Your task to perform on an android device: toggle wifi Image 0: 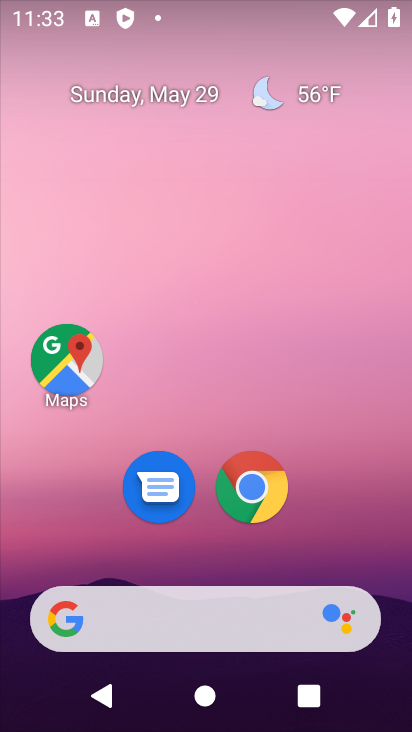
Step 0: drag from (261, 557) to (301, 185)
Your task to perform on an android device: toggle wifi Image 1: 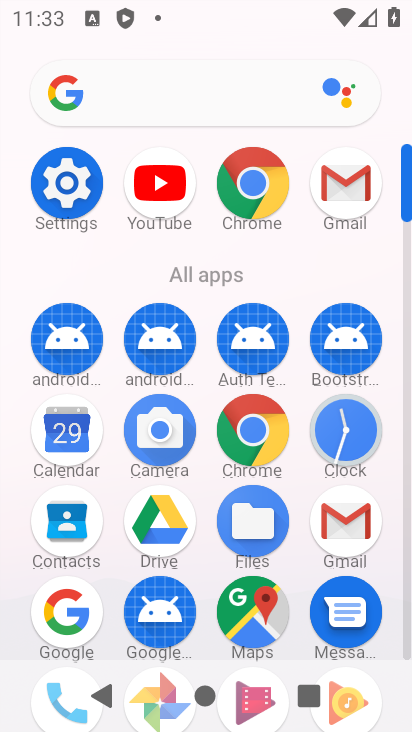
Step 1: click (63, 188)
Your task to perform on an android device: toggle wifi Image 2: 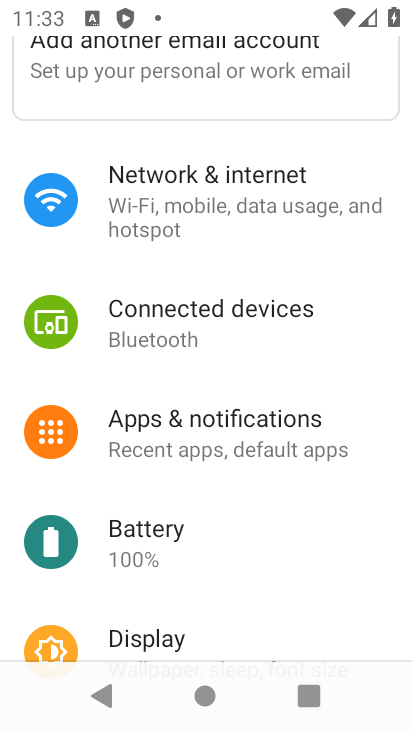
Step 2: click (238, 197)
Your task to perform on an android device: toggle wifi Image 3: 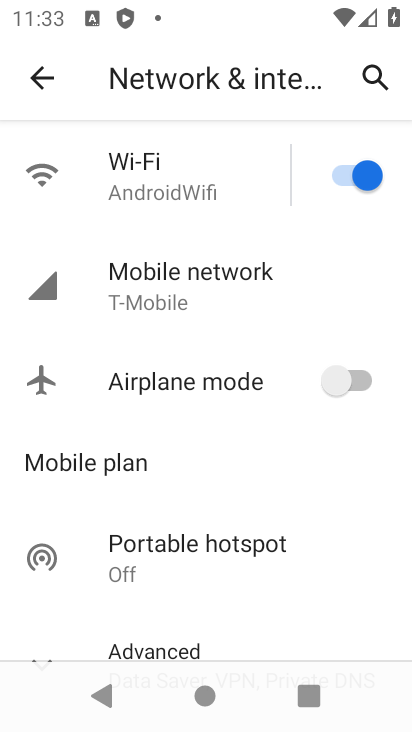
Step 3: click (337, 169)
Your task to perform on an android device: toggle wifi Image 4: 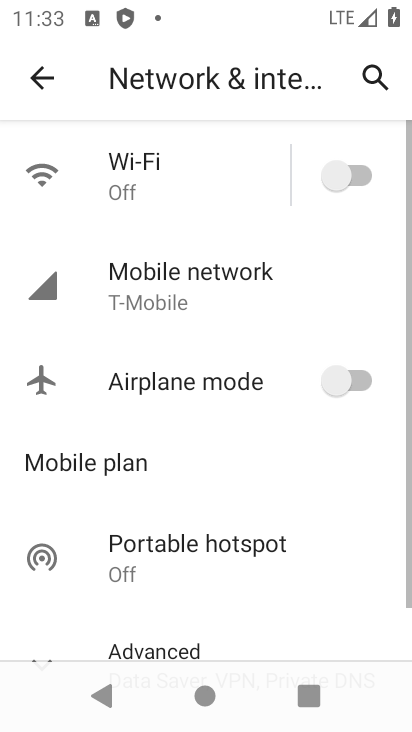
Step 4: task complete